Your task to perform on an android device: delete browsing data in the chrome app Image 0: 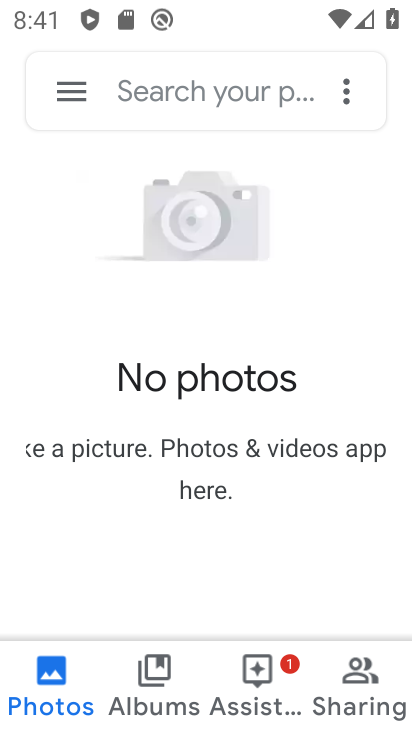
Step 0: press home button
Your task to perform on an android device: delete browsing data in the chrome app Image 1: 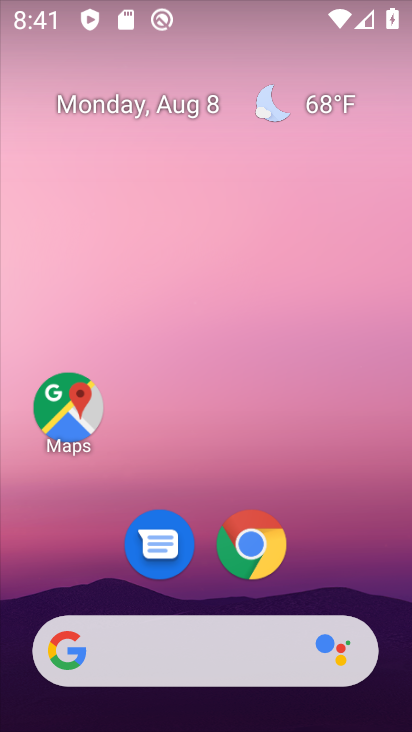
Step 1: click (249, 539)
Your task to perform on an android device: delete browsing data in the chrome app Image 2: 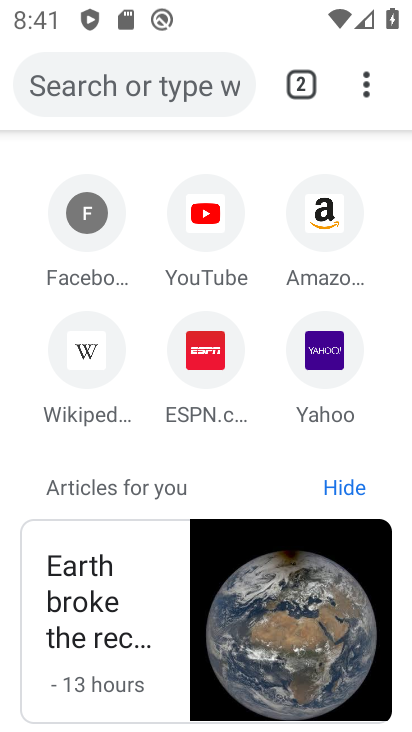
Step 2: click (365, 82)
Your task to perform on an android device: delete browsing data in the chrome app Image 3: 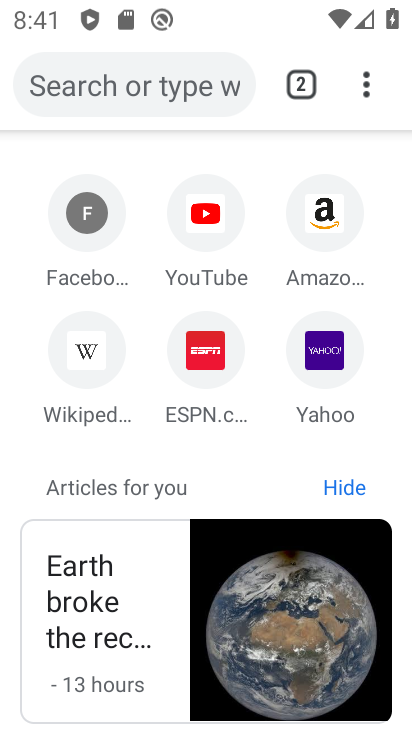
Step 3: click (363, 83)
Your task to perform on an android device: delete browsing data in the chrome app Image 4: 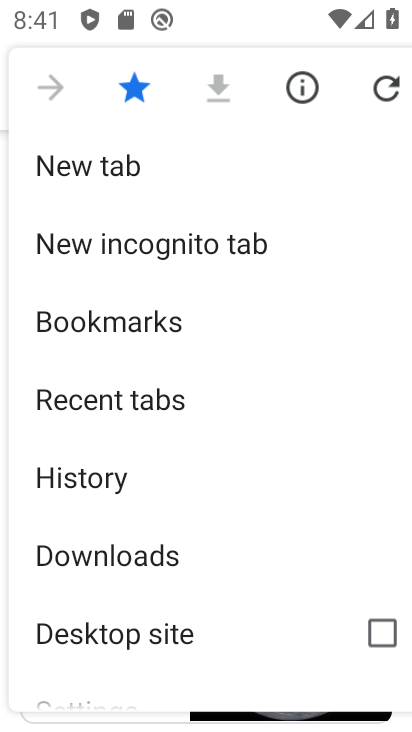
Step 4: click (141, 476)
Your task to perform on an android device: delete browsing data in the chrome app Image 5: 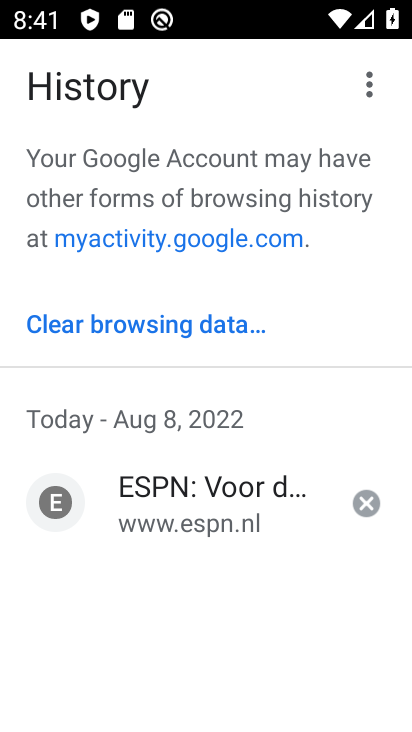
Step 5: click (158, 323)
Your task to perform on an android device: delete browsing data in the chrome app Image 6: 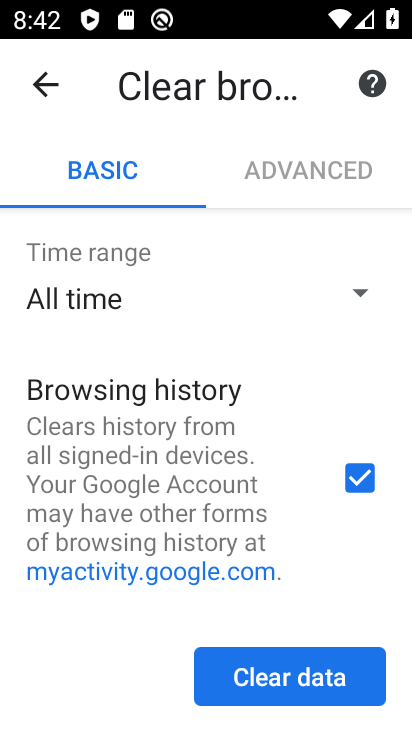
Step 6: drag from (258, 532) to (294, 208)
Your task to perform on an android device: delete browsing data in the chrome app Image 7: 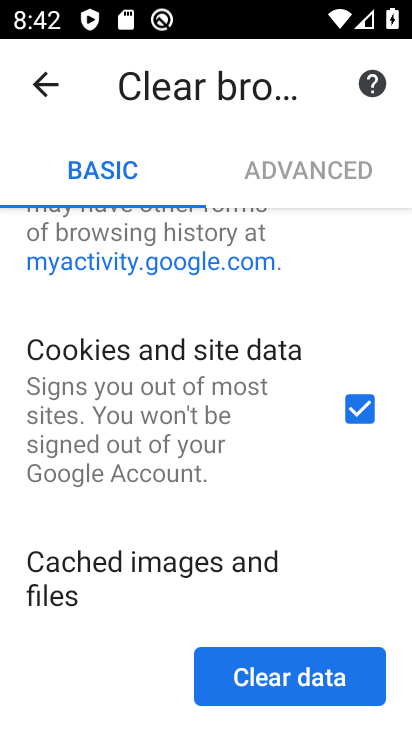
Step 7: click (291, 663)
Your task to perform on an android device: delete browsing data in the chrome app Image 8: 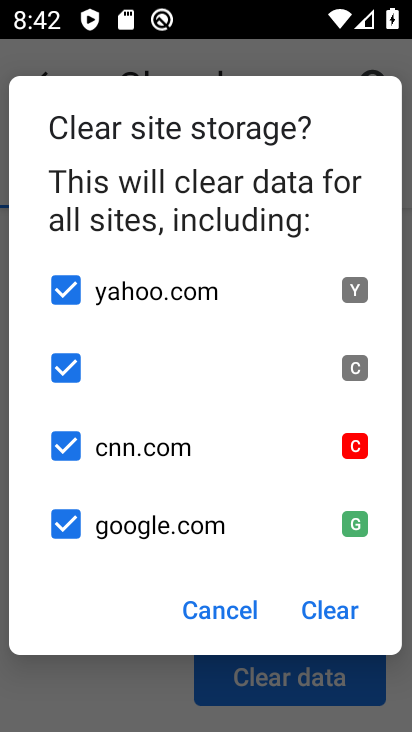
Step 8: click (327, 611)
Your task to perform on an android device: delete browsing data in the chrome app Image 9: 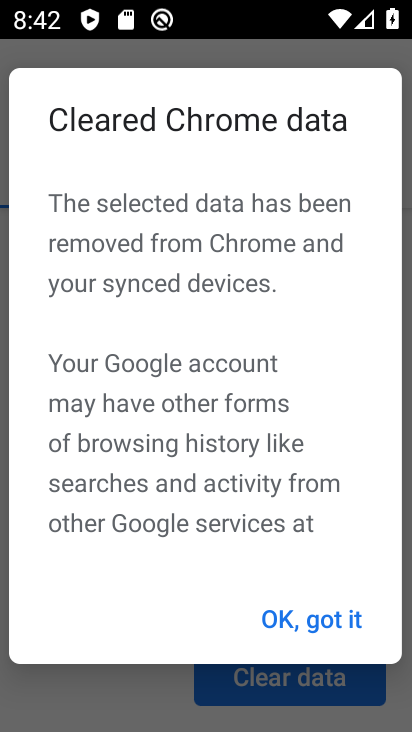
Step 9: click (291, 624)
Your task to perform on an android device: delete browsing data in the chrome app Image 10: 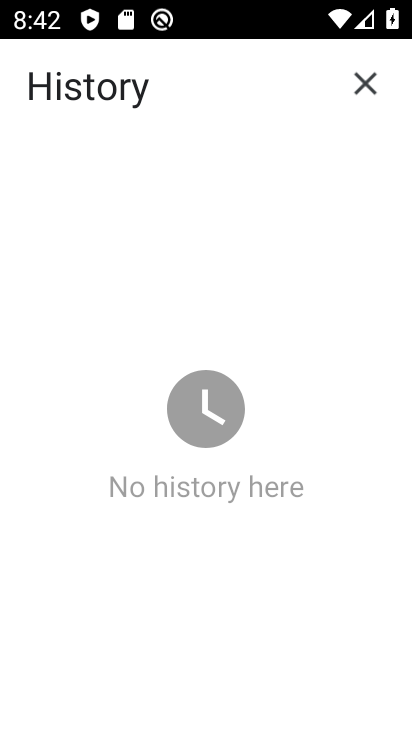
Step 10: task complete